Your task to perform on an android device: turn on bluetooth scan Image 0: 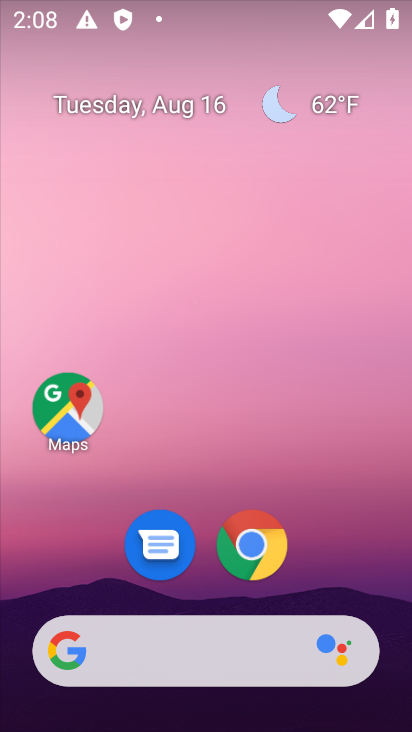
Step 0: drag from (219, 627) to (240, 209)
Your task to perform on an android device: turn on bluetooth scan Image 1: 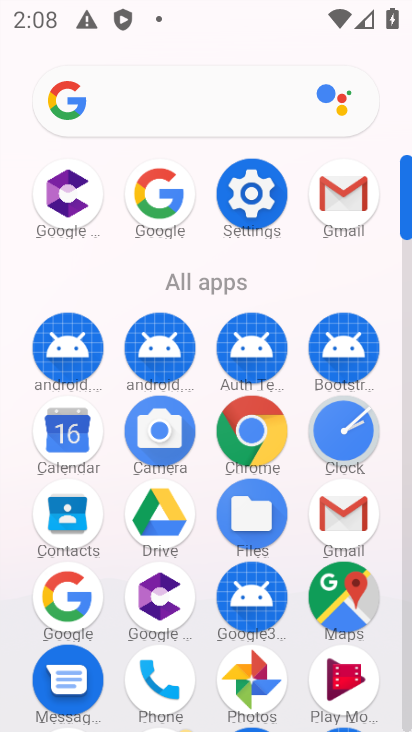
Step 1: click (257, 195)
Your task to perform on an android device: turn on bluetooth scan Image 2: 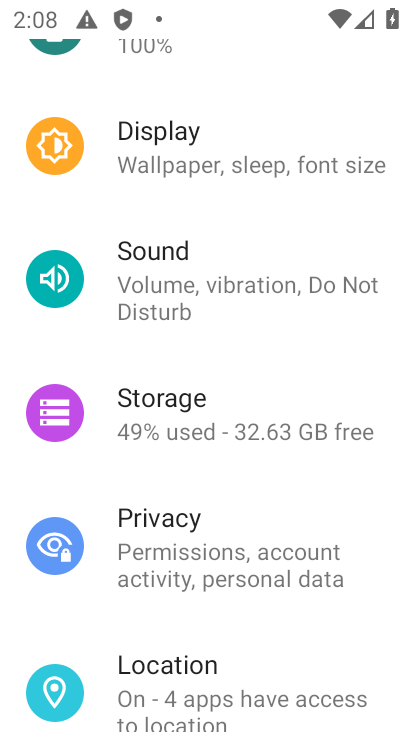
Step 2: click (181, 683)
Your task to perform on an android device: turn on bluetooth scan Image 3: 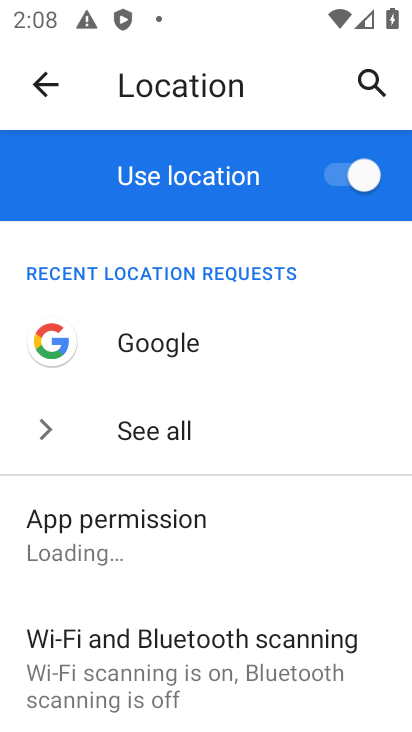
Step 3: click (115, 674)
Your task to perform on an android device: turn on bluetooth scan Image 4: 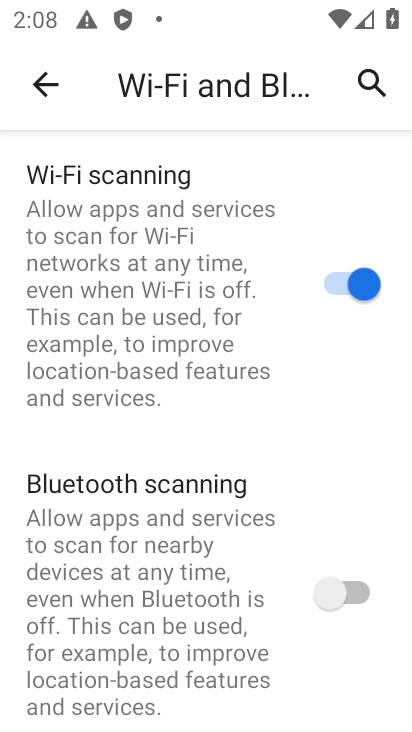
Step 4: click (350, 591)
Your task to perform on an android device: turn on bluetooth scan Image 5: 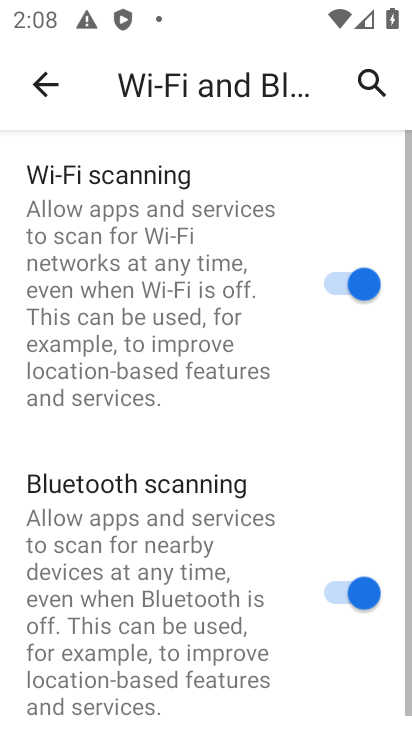
Step 5: task complete